Your task to perform on an android device: Search for "usb-a" on costco.com, select the first entry, add it to the cart, then select checkout. Image 0: 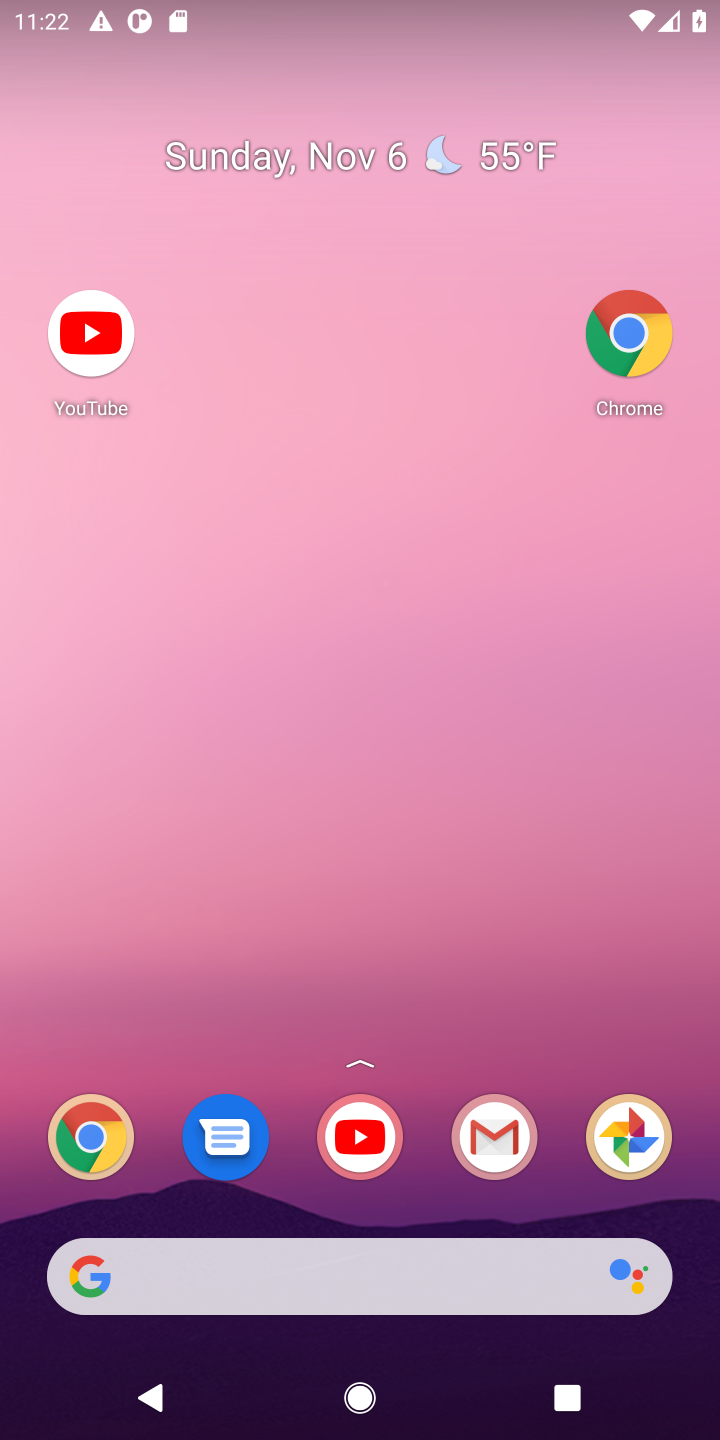
Step 0: drag from (407, 1041) to (368, 97)
Your task to perform on an android device: Search for "usb-a" on costco.com, select the first entry, add it to the cart, then select checkout. Image 1: 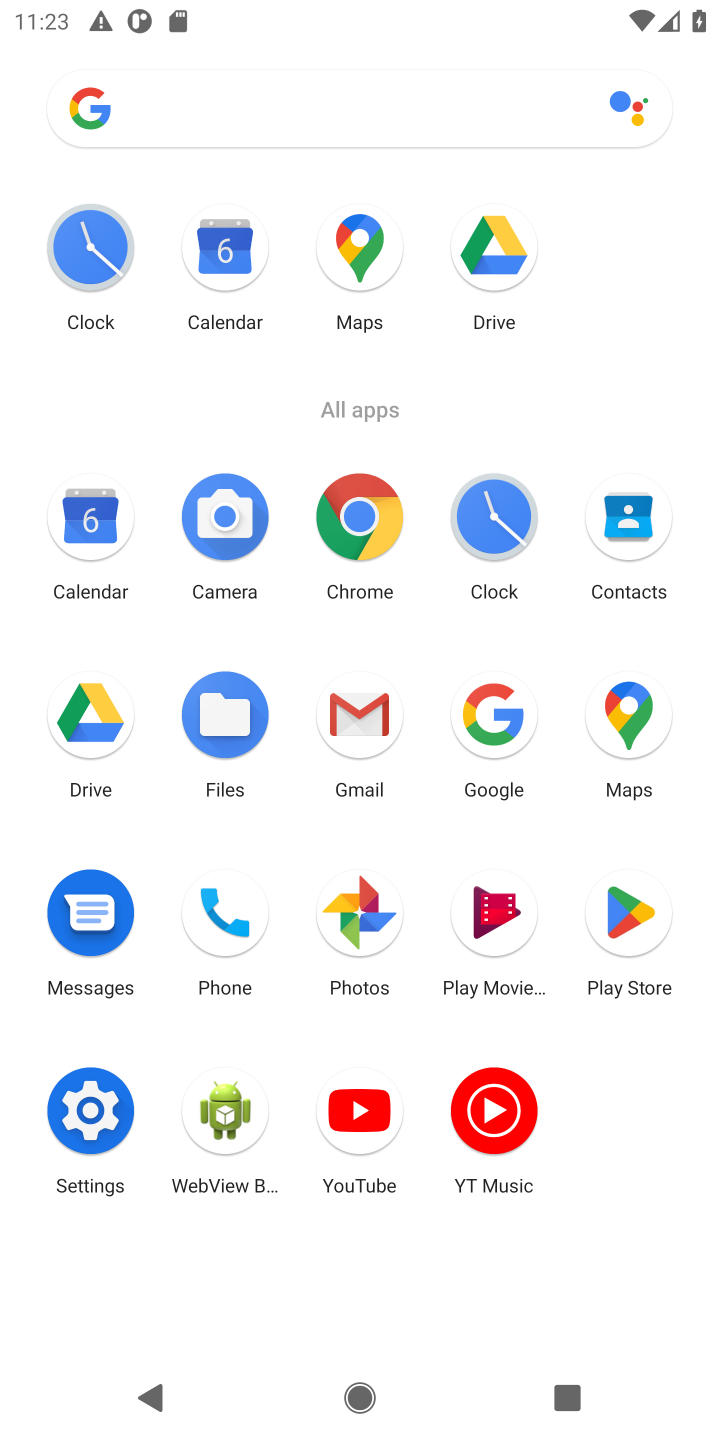
Step 1: click (357, 525)
Your task to perform on an android device: Search for "usb-a" on costco.com, select the first entry, add it to the cart, then select checkout. Image 2: 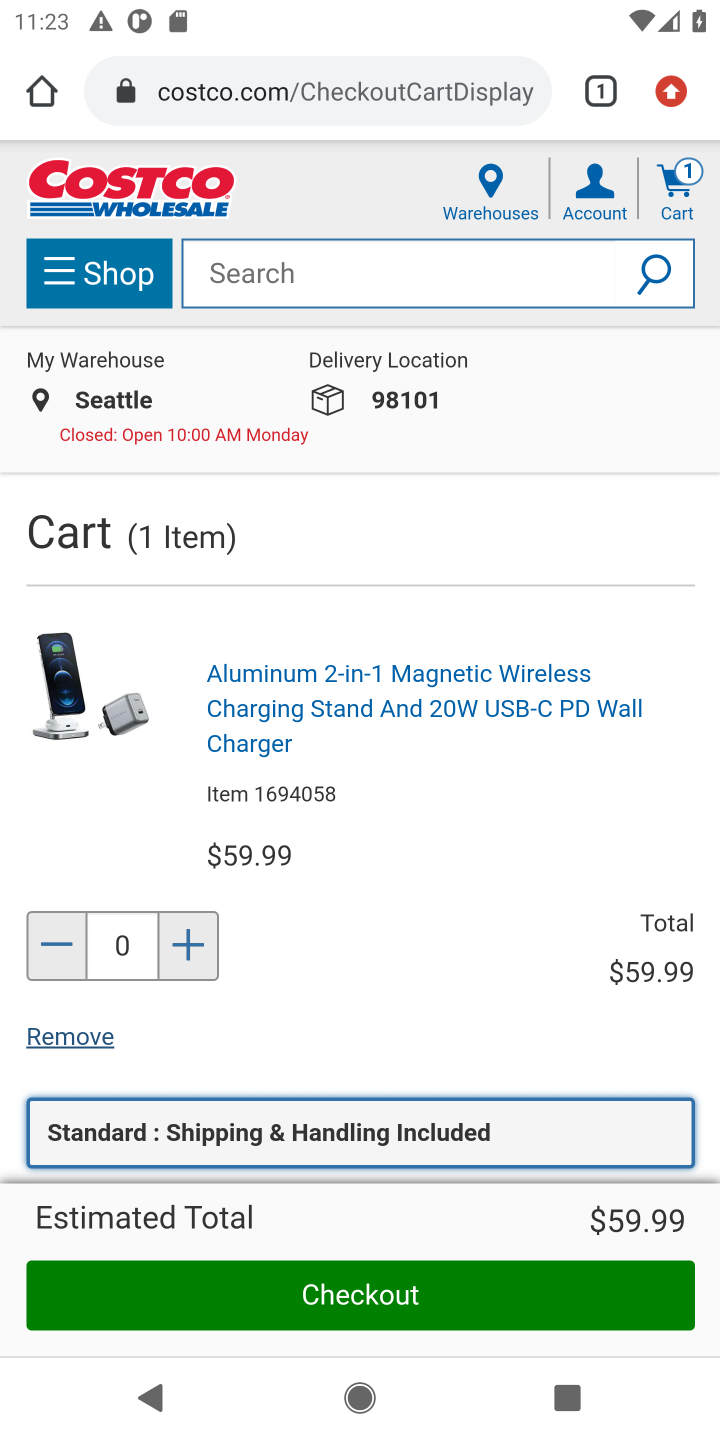
Step 2: click (421, 74)
Your task to perform on an android device: Search for "usb-a" on costco.com, select the first entry, add it to the cart, then select checkout. Image 3: 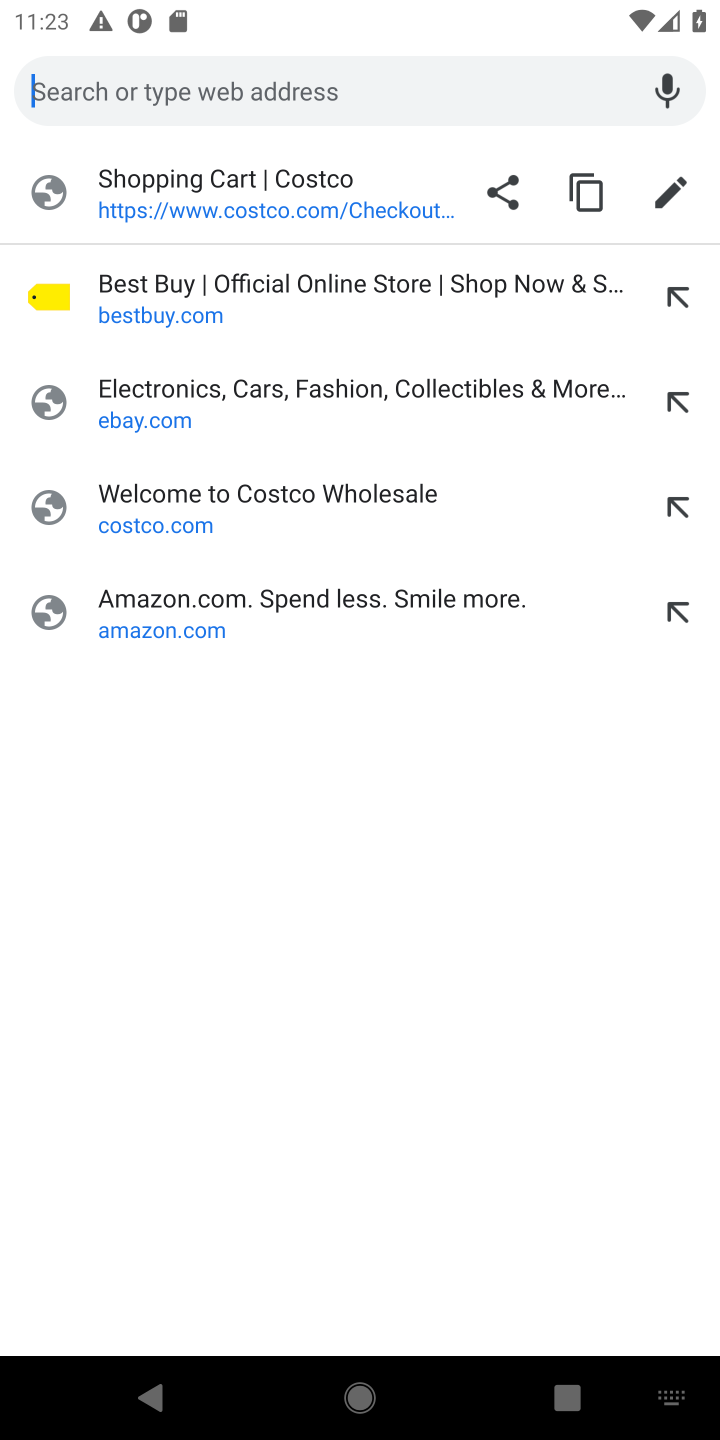
Step 3: type "costco.com"
Your task to perform on an android device: Search for "usb-a" on costco.com, select the first entry, add it to the cart, then select checkout. Image 4: 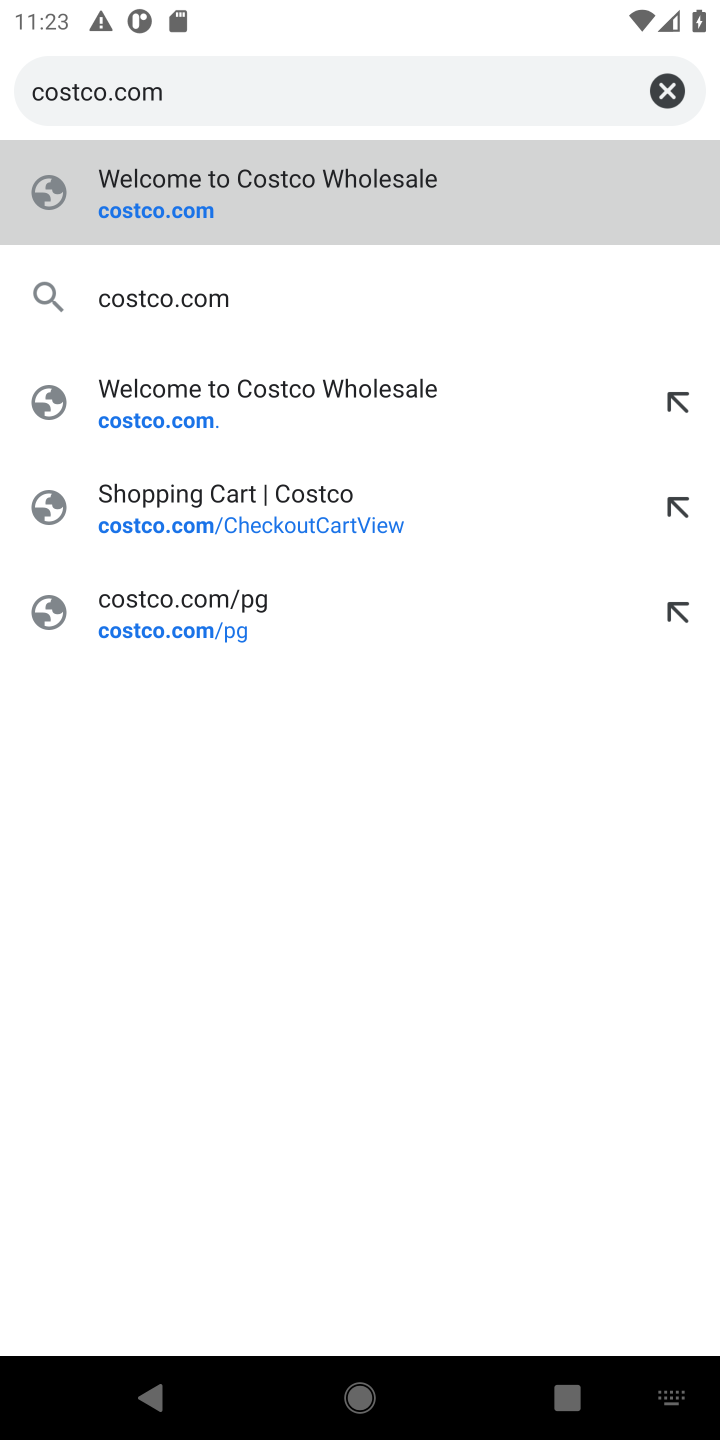
Step 4: press enter
Your task to perform on an android device: Search for "usb-a" on costco.com, select the first entry, add it to the cart, then select checkout. Image 5: 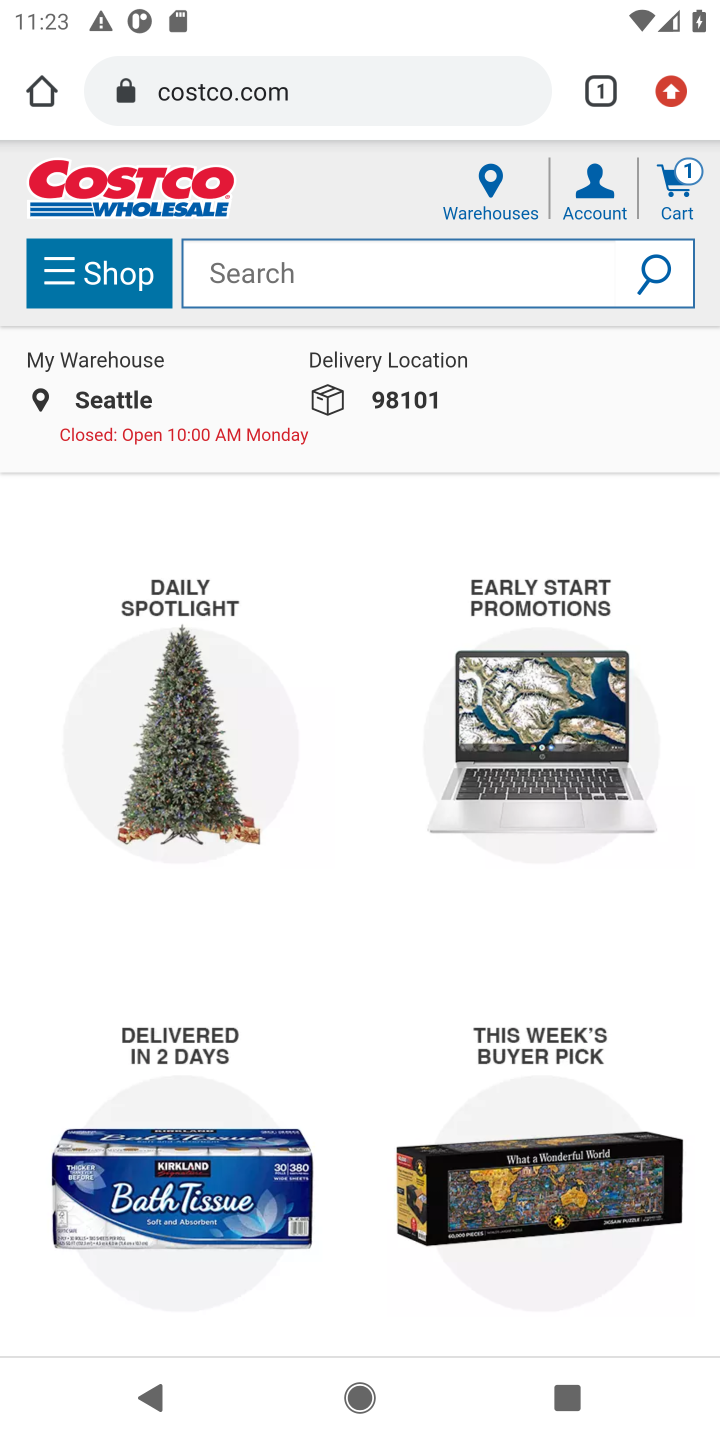
Step 5: click (511, 279)
Your task to perform on an android device: Search for "usb-a" on costco.com, select the first entry, add it to the cart, then select checkout. Image 6: 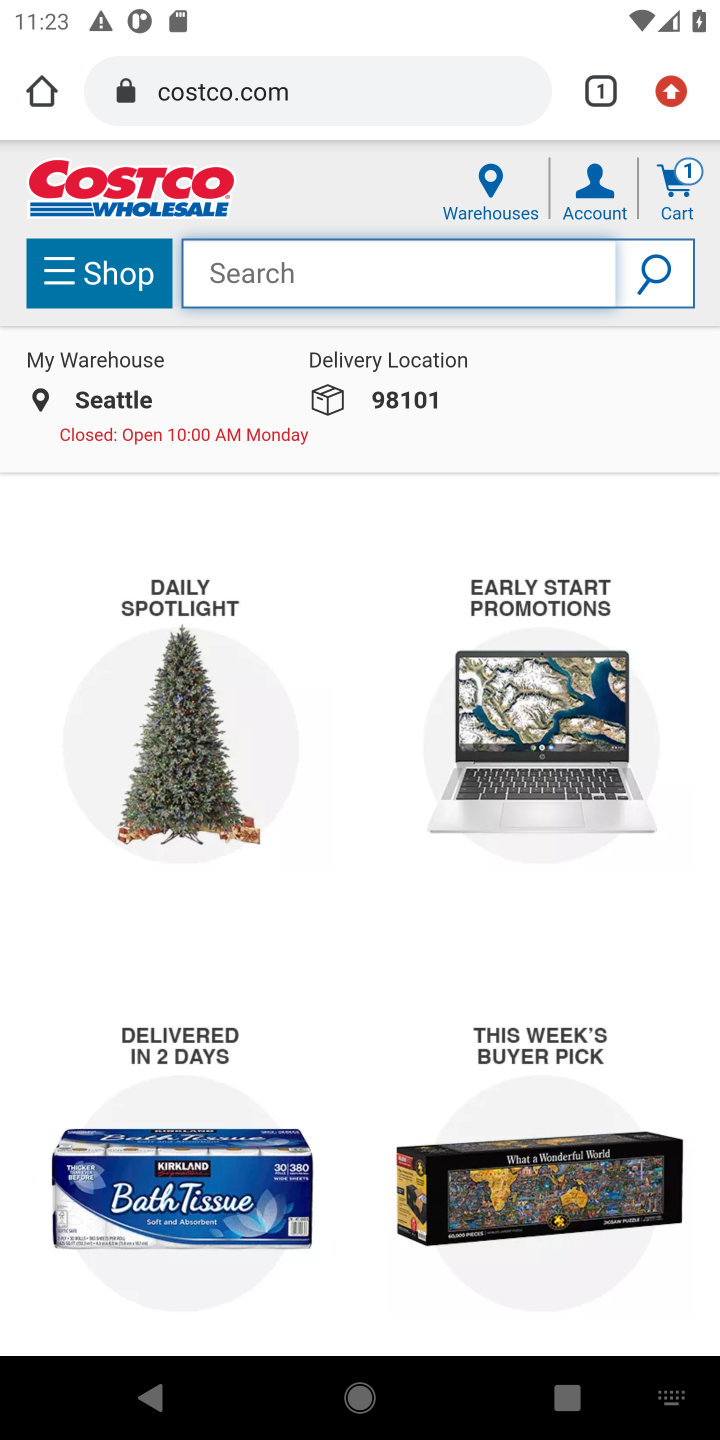
Step 6: type "usb-a"
Your task to perform on an android device: Search for "usb-a" on costco.com, select the first entry, add it to the cart, then select checkout. Image 7: 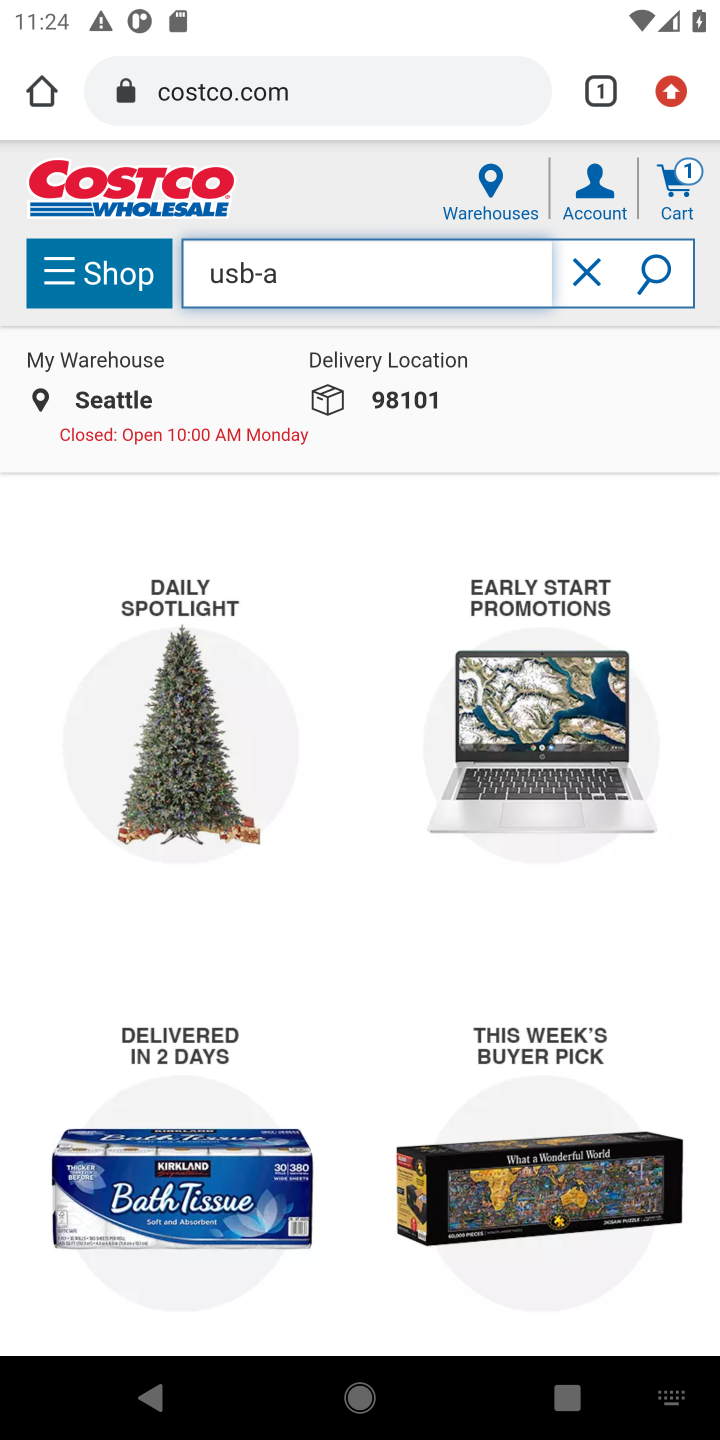
Step 7: press enter
Your task to perform on an android device: Search for "usb-a" on costco.com, select the first entry, add it to the cart, then select checkout. Image 8: 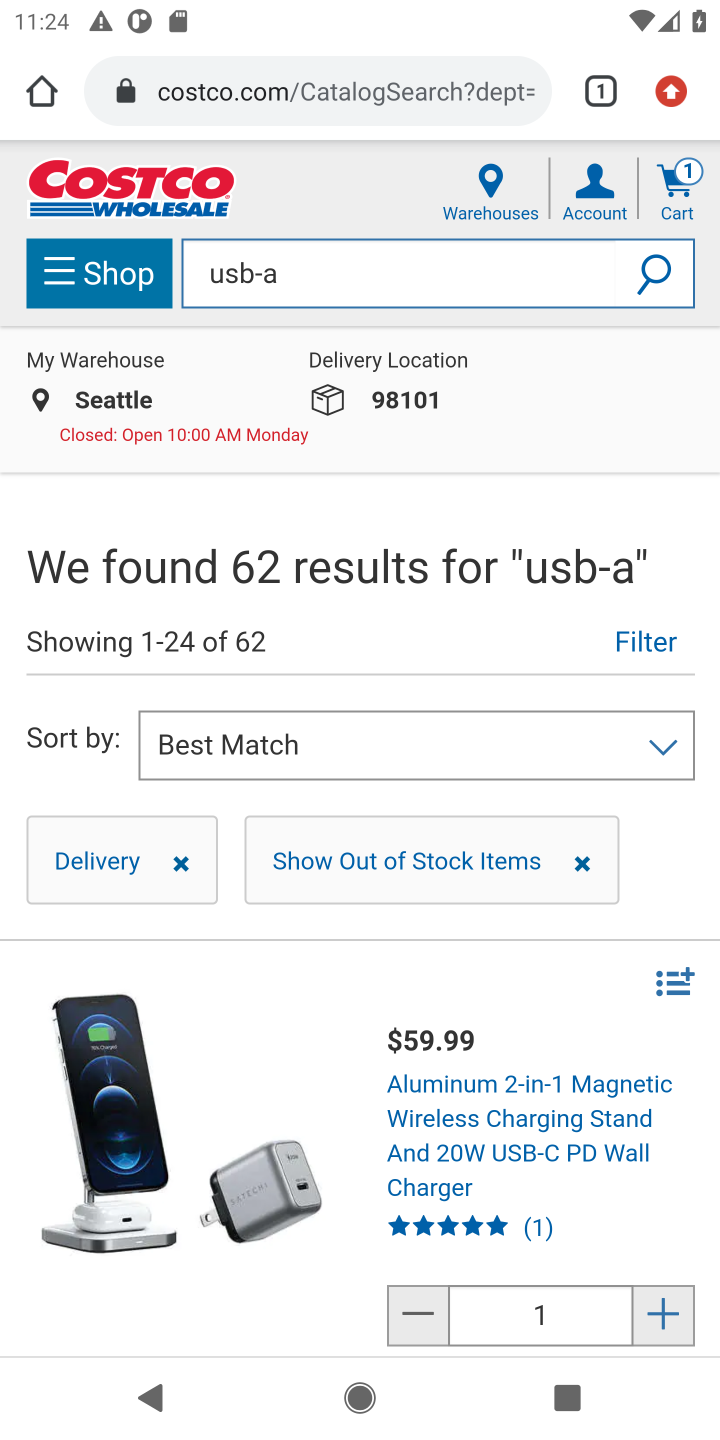
Step 8: drag from (517, 988) to (463, 187)
Your task to perform on an android device: Search for "usb-a" on costco.com, select the first entry, add it to the cart, then select checkout. Image 9: 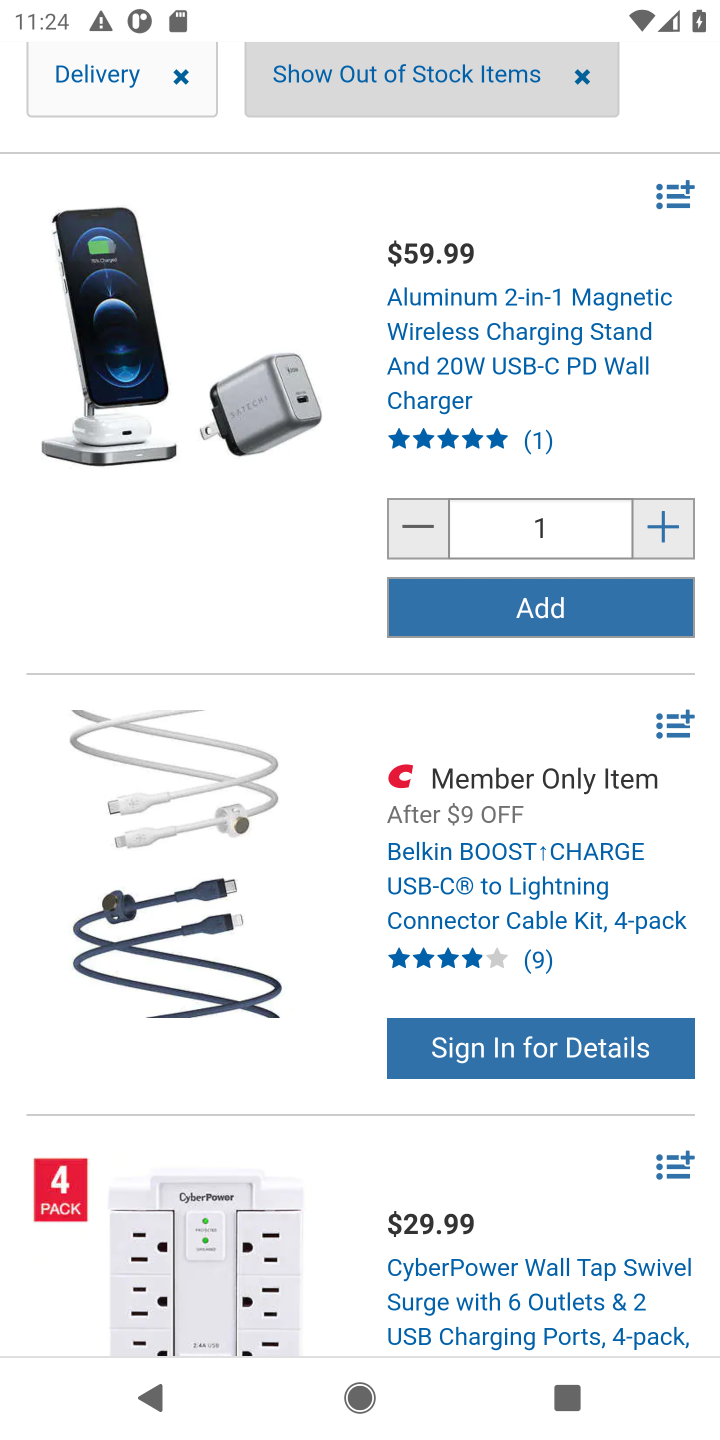
Step 9: click (562, 627)
Your task to perform on an android device: Search for "usb-a" on costco.com, select the first entry, add it to the cart, then select checkout. Image 10: 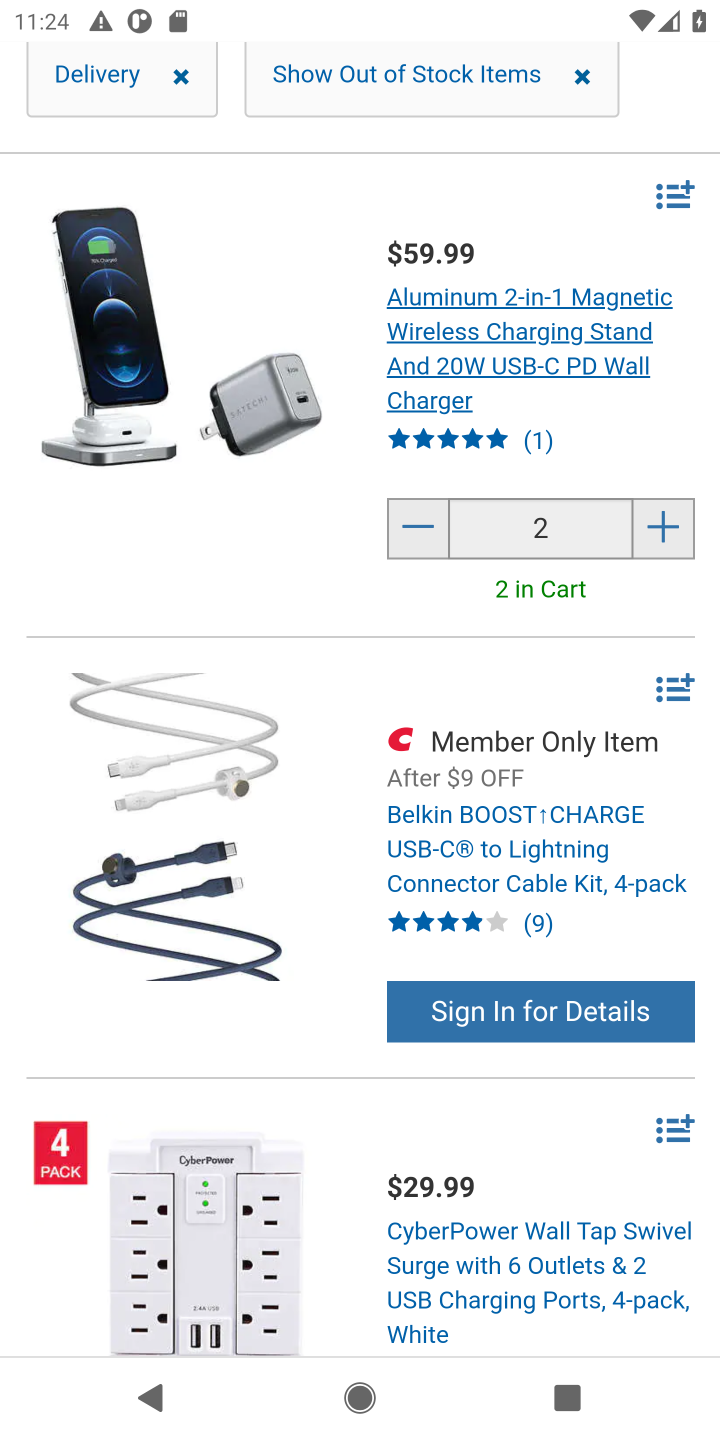
Step 10: drag from (514, 271) to (479, 1156)
Your task to perform on an android device: Search for "usb-a" on costco.com, select the first entry, add it to the cart, then select checkout. Image 11: 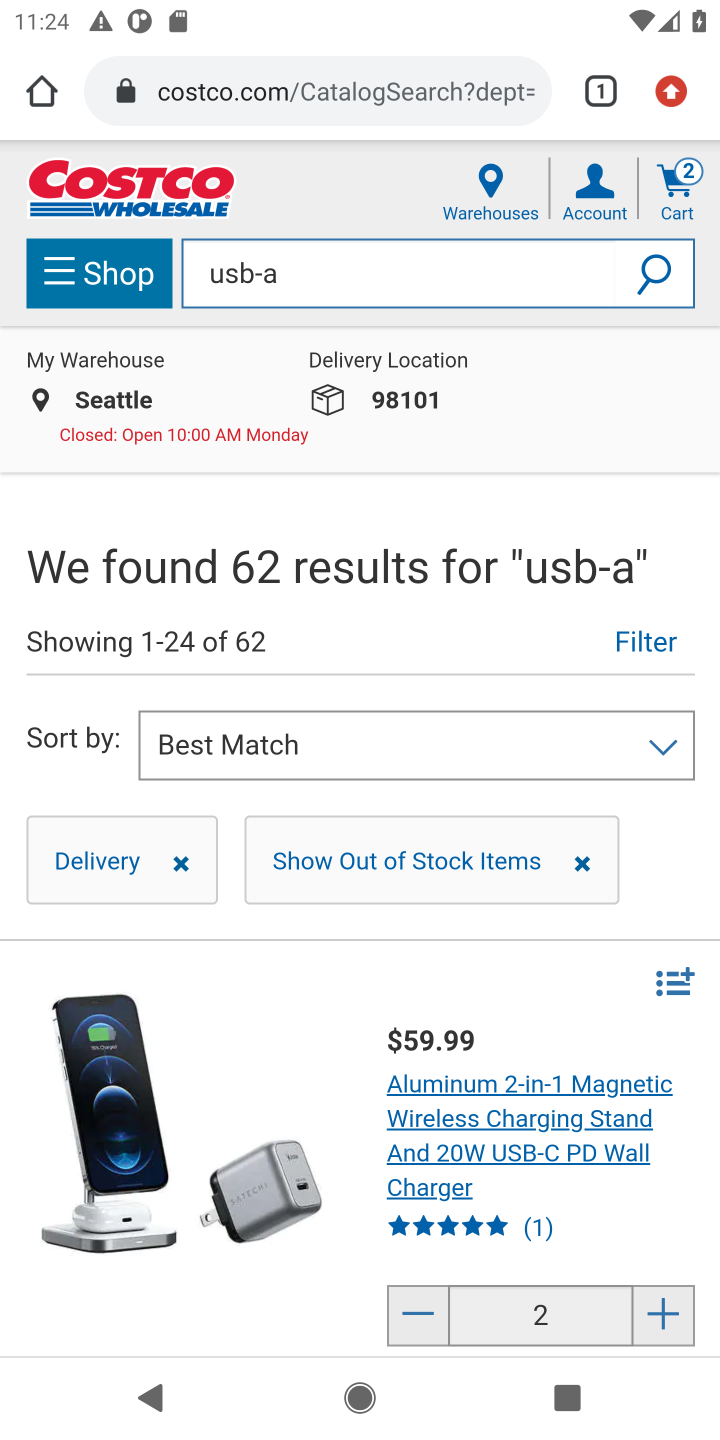
Step 11: click (682, 190)
Your task to perform on an android device: Search for "usb-a" on costco.com, select the first entry, add it to the cart, then select checkout. Image 12: 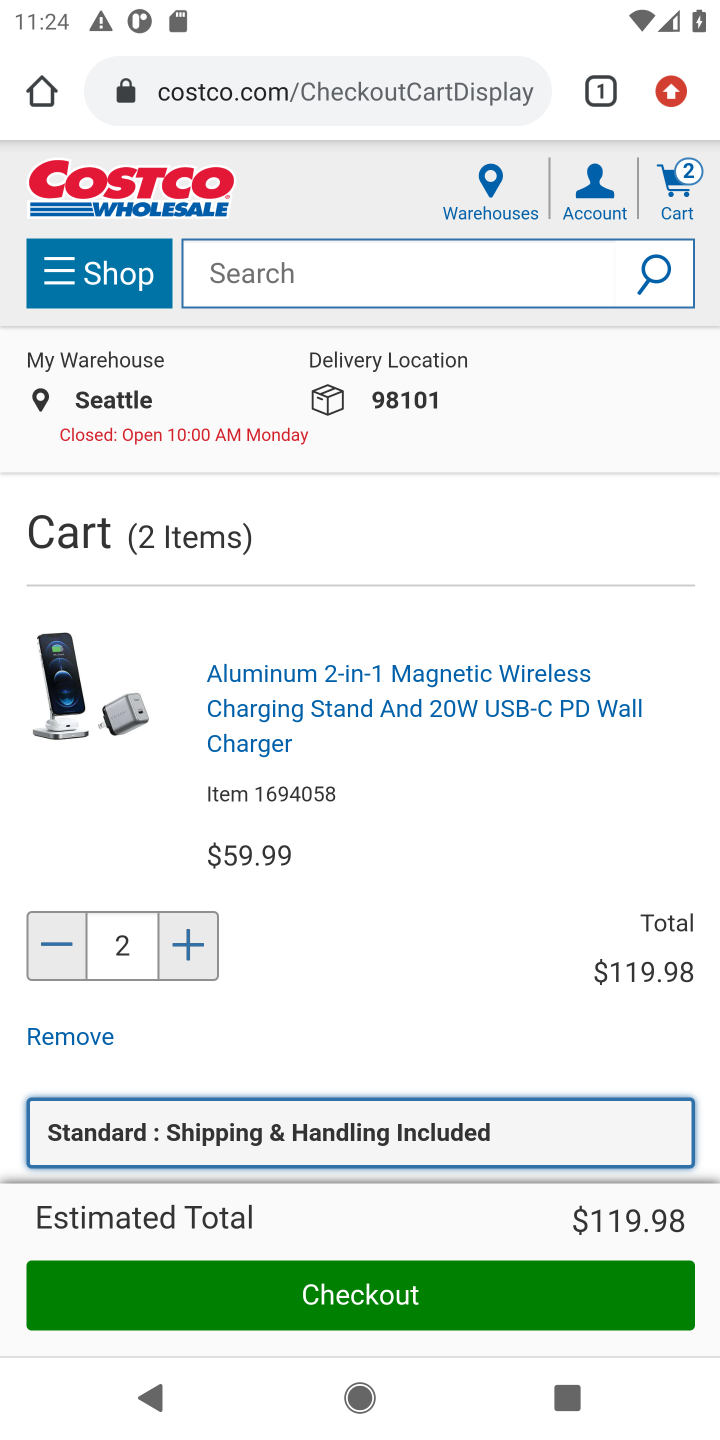
Step 12: click (415, 1302)
Your task to perform on an android device: Search for "usb-a" on costco.com, select the first entry, add it to the cart, then select checkout. Image 13: 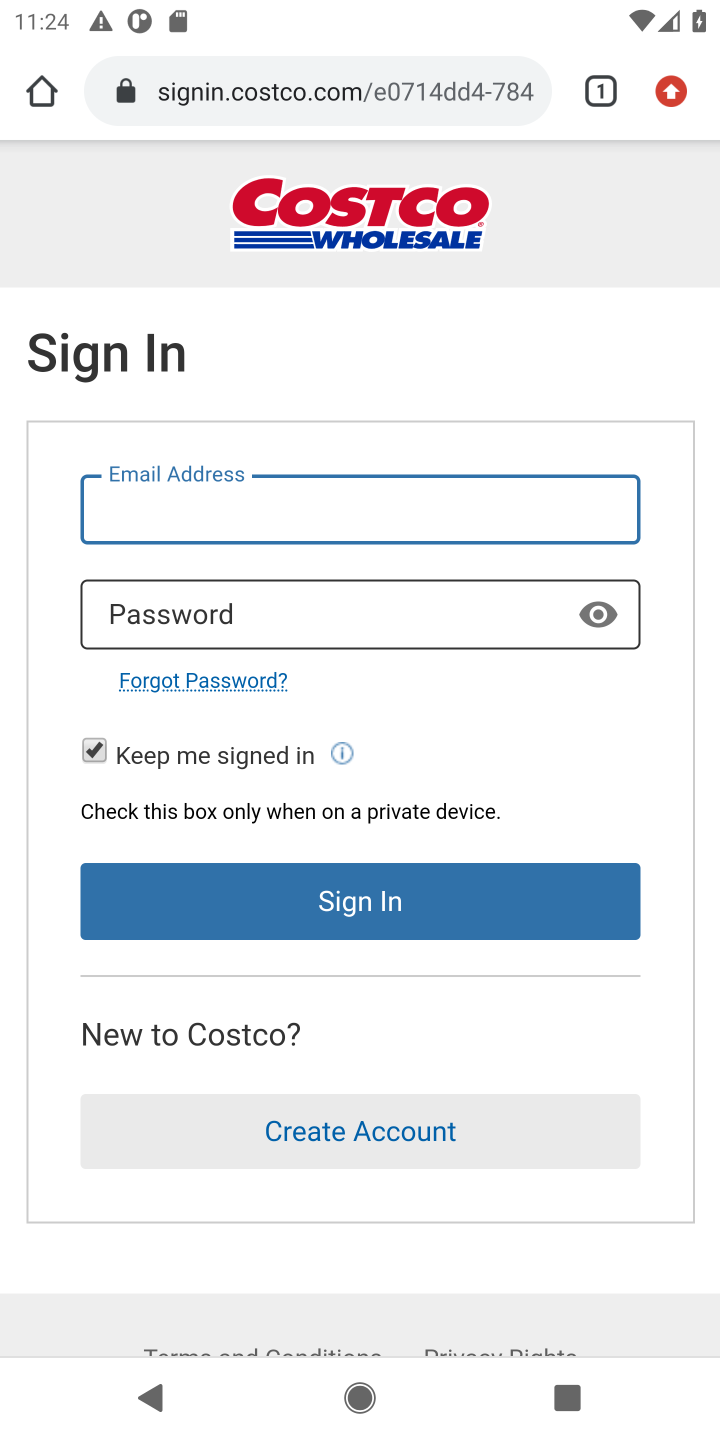
Step 13: task complete